Your task to perform on an android device: turn on notifications settings in the gmail app Image 0: 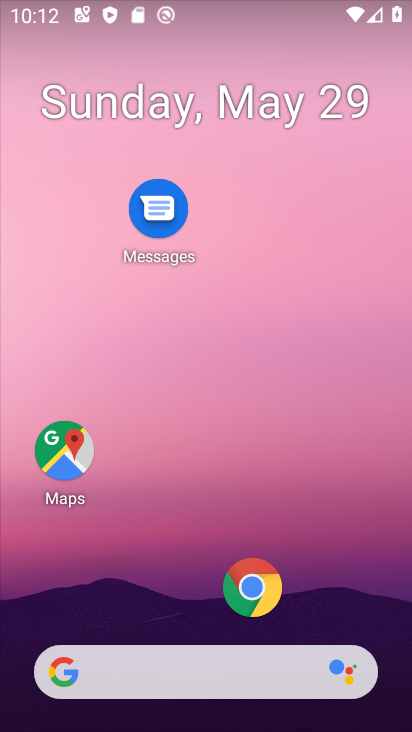
Step 0: drag from (141, 571) to (259, 91)
Your task to perform on an android device: turn on notifications settings in the gmail app Image 1: 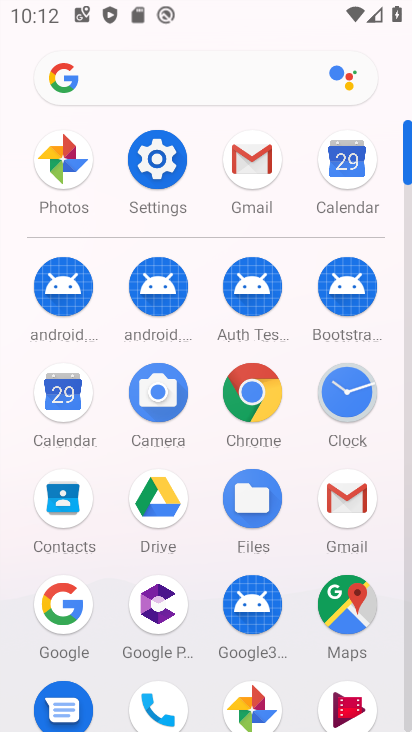
Step 1: click (247, 157)
Your task to perform on an android device: turn on notifications settings in the gmail app Image 2: 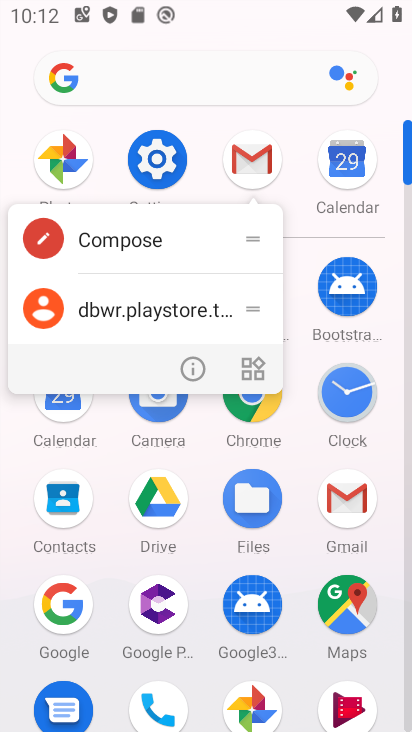
Step 2: click (187, 376)
Your task to perform on an android device: turn on notifications settings in the gmail app Image 3: 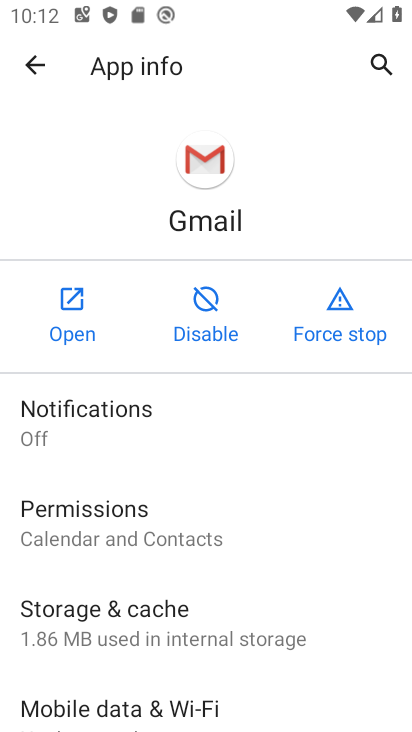
Step 3: click (124, 444)
Your task to perform on an android device: turn on notifications settings in the gmail app Image 4: 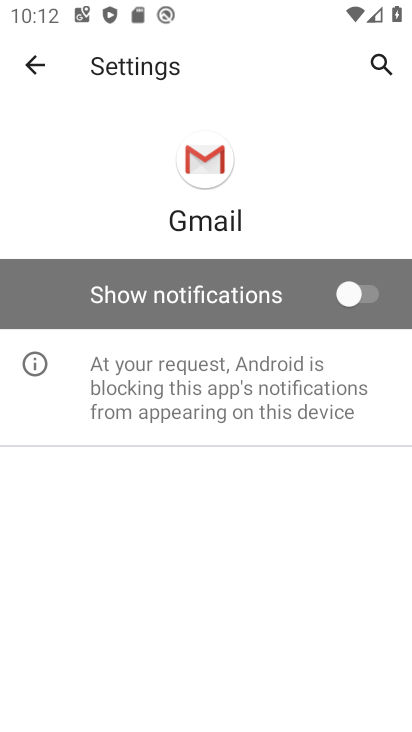
Step 4: click (355, 291)
Your task to perform on an android device: turn on notifications settings in the gmail app Image 5: 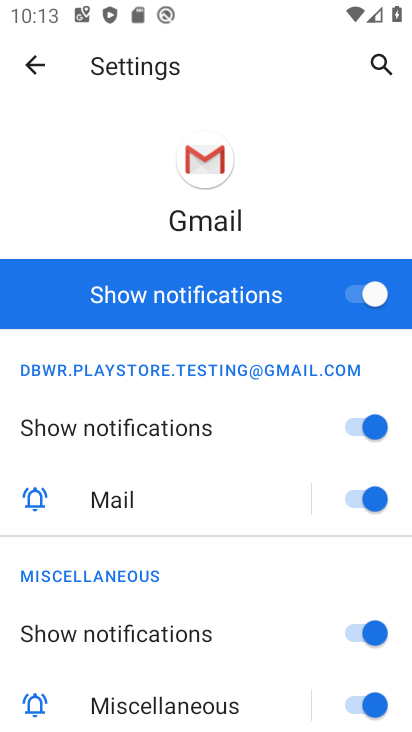
Step 5: task complete